Your task to perform on an android device: delete browsing data in the chrome app Image 0: 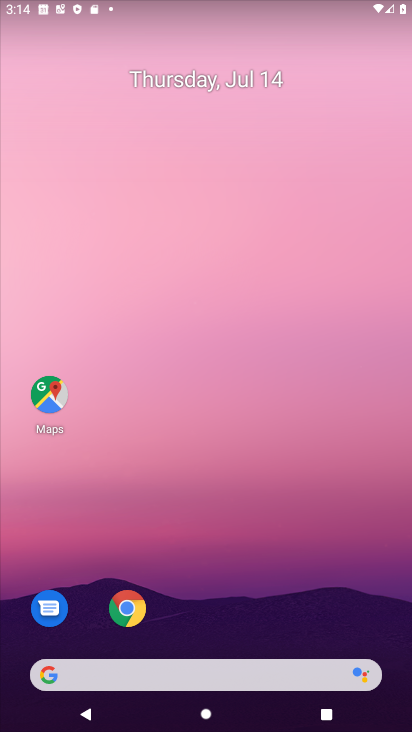
Step 0: click (124, 622)
Your task to perform on an android device: delete browsing data in the chrome app Image 1: 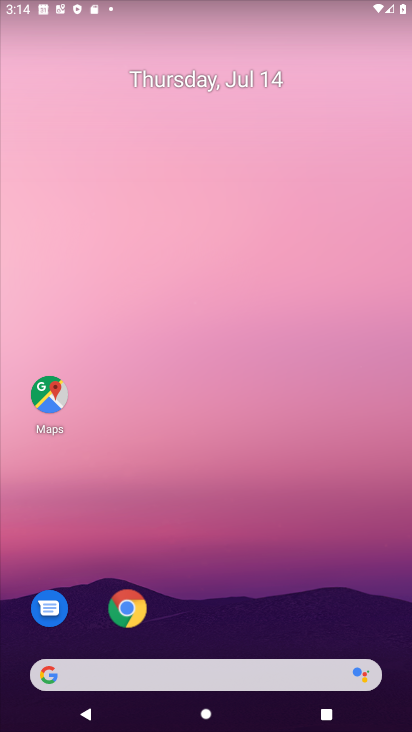
Step 1: click (124, 622)
Your task to perform on an android device: delete browsing data in the chrome app Image 2: 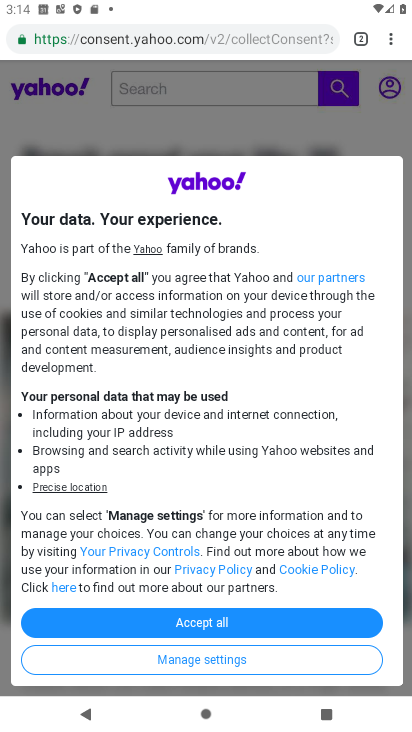
Step 2: click (396, 34)
Your task to perform on an android device: delete browsing data in the chrome app Image 3: 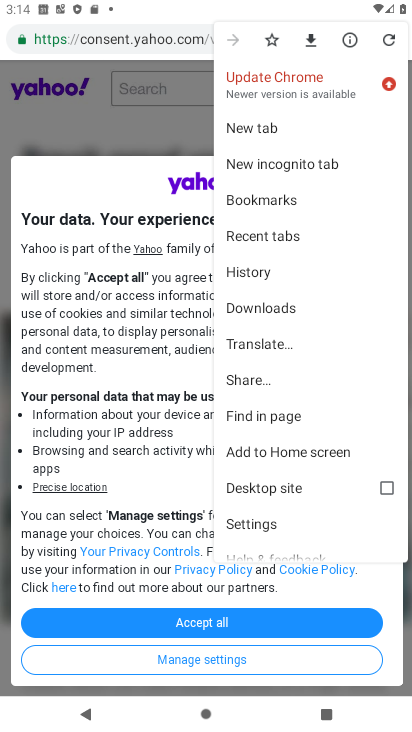
Step 3: click (258, 276)
Your task to perform on an android device: delete browsing data in the chrome app Image 4: 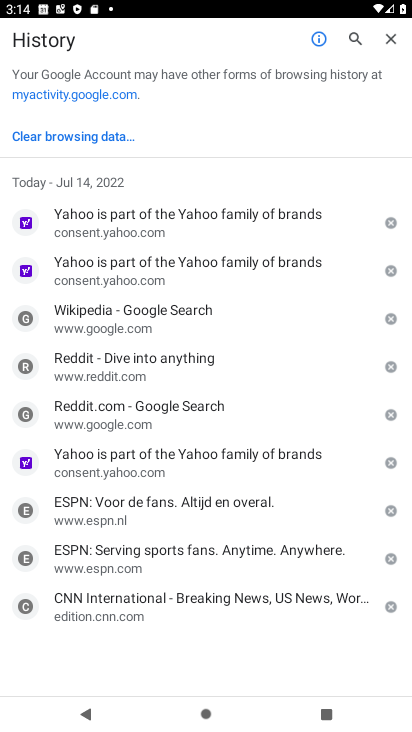
Step 4: click (105, 138)
Your task to perform on an android device: delete browsing data in the chrome app Image 5: 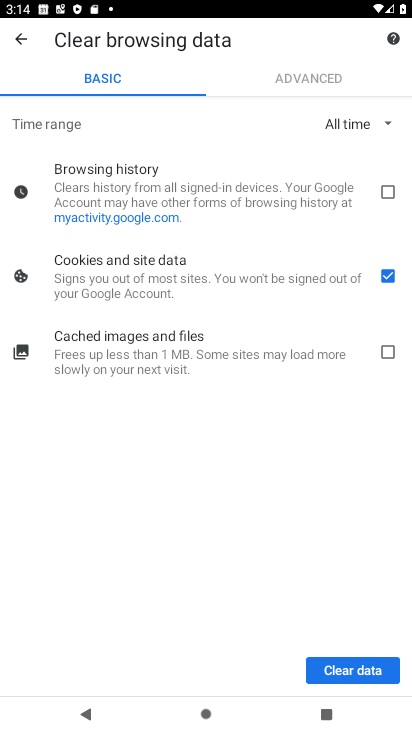
Step 5: click (388, 194)
Your task to perform on an android device: delete browsing data in the chrome app Image 6: 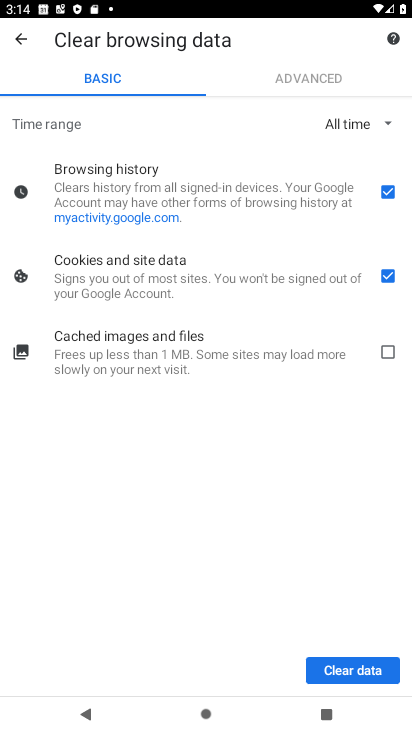
Step 6: click (391, 351)
Your task to perform on an android device: delete browsing data in the chrome app Image 7: 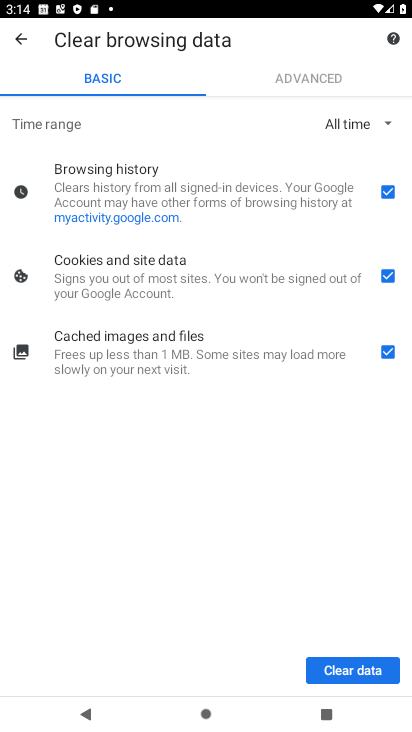
Step 7: click (364, 676)
Your task to perform on an android device: delete browsing data in the chrome app Image 8: 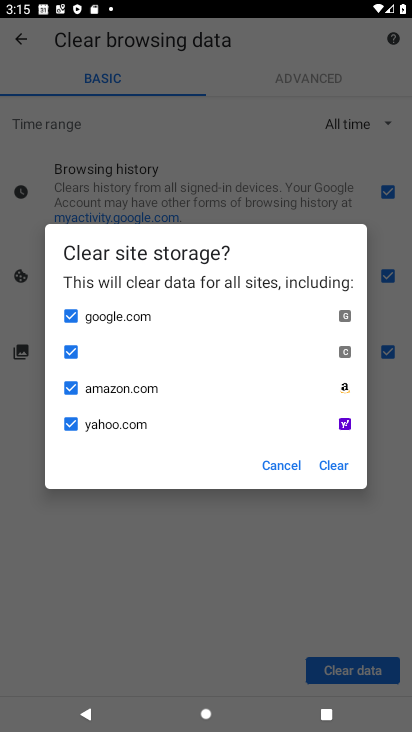
Step 8: click (340, 458)
Your task to perform on an android device: delete browsing data in the chrome app Image 9: 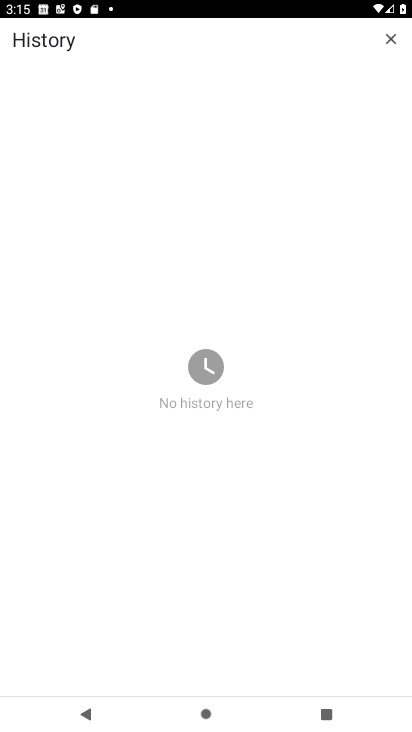
Step 9: task complete